Your task to perform on an android device: Show me recent news Image 0: 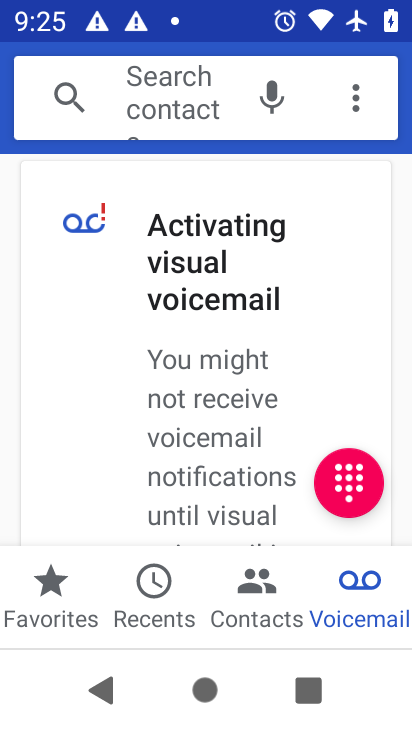
Step 0: press home button
Your task to perform on an android device: Show me recent news Image 1: 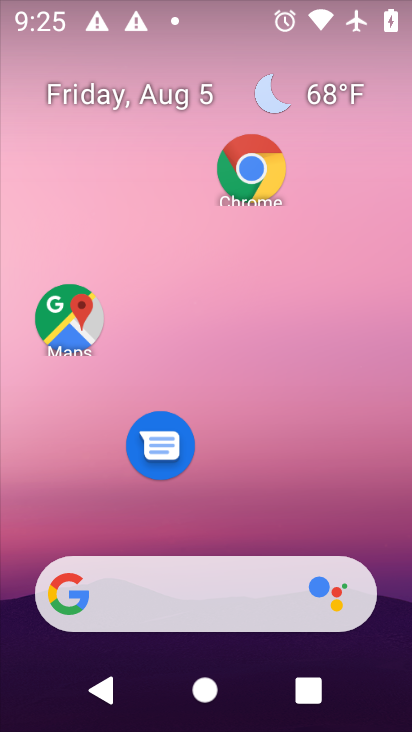
Step 1: drag from (225, 516) to (199, 162)
Your task to perform on an android device: Show me recent news Image 2: 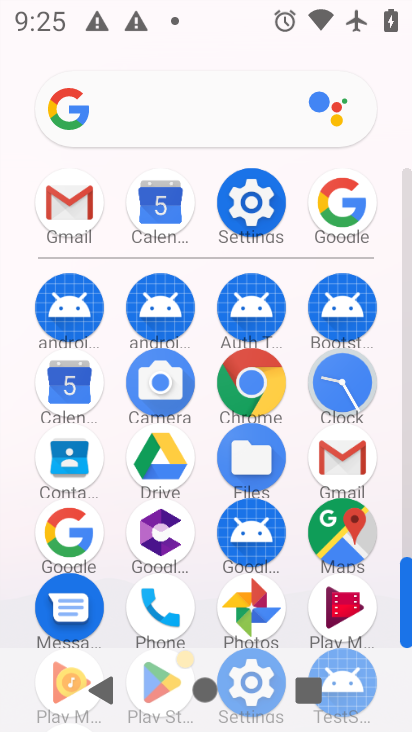
Step 2: click (342, 198)
Your task to perform on an android device: Show me recent news Image 3: 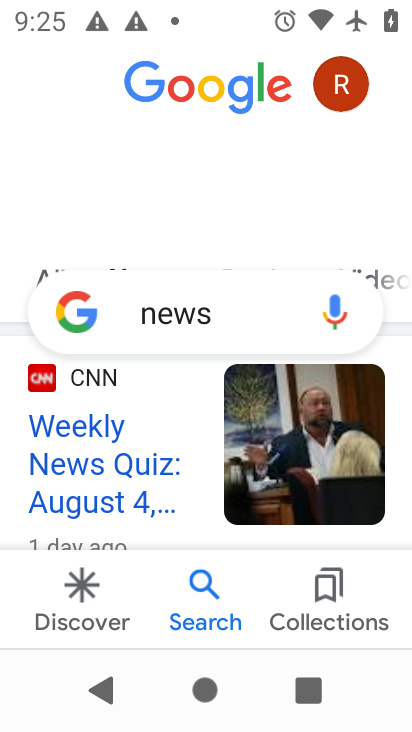
Step 3: click (217, 306)
Your task to perform on an android device: Show me recent news Image 4: 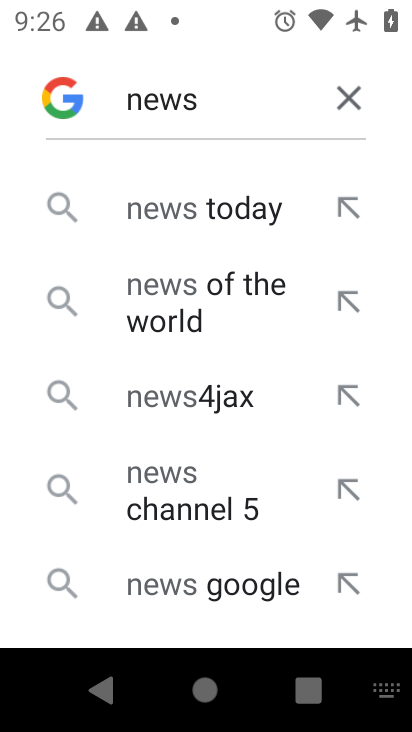
Step 4: click (243, 205)
Your task to perform on an android device: Show me recent news Image 5: 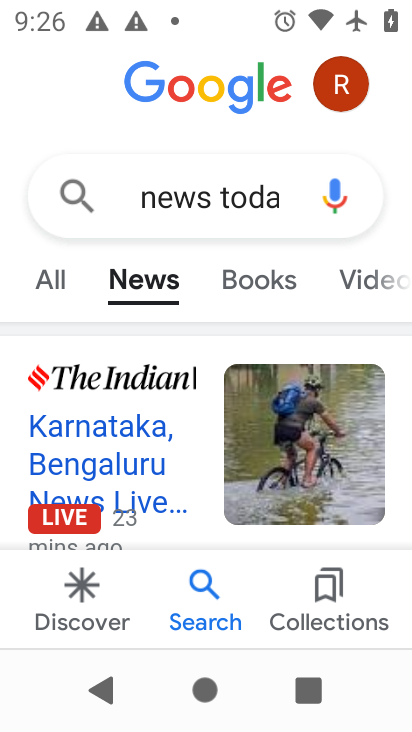
Step 5: task complete